Your task to perform on an android device: Open CNN.com Image 0: 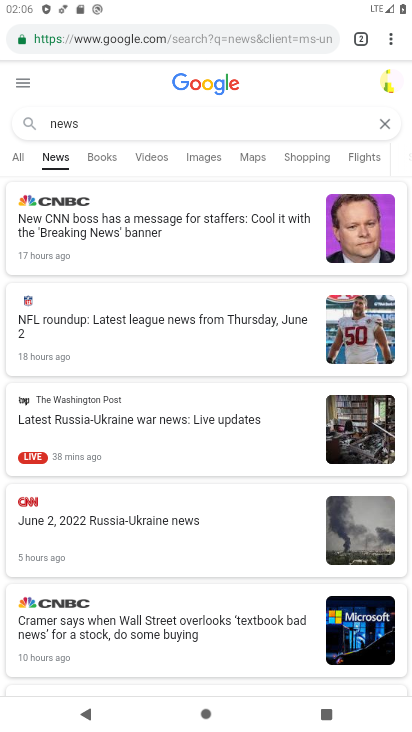
Step 0: click (33, 501)
Your task to perform on an android device: Open CNN.com Image 1: 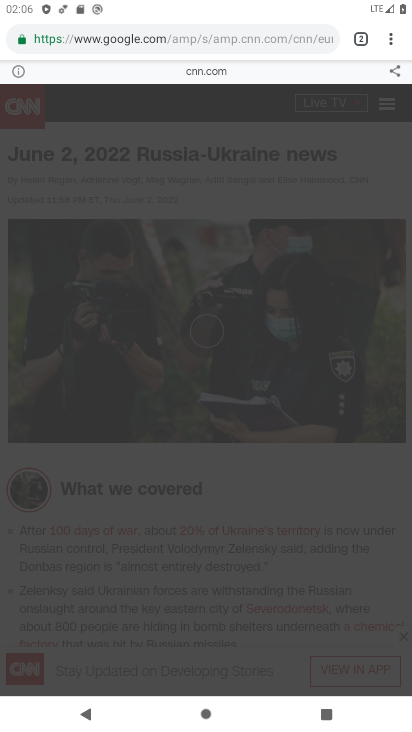
Step 1: click (183, 42)
Your task to perform on an android device: Open CNN.com Image 2: 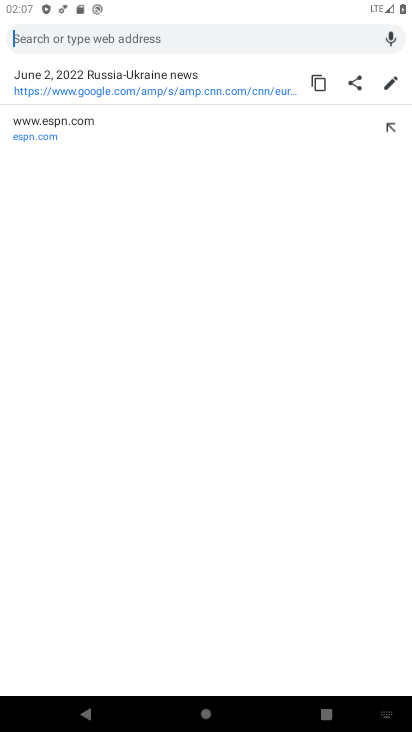
Step 2: type "cnn.com"
Your task to perform on an android device: Open CNN.com Image 3: 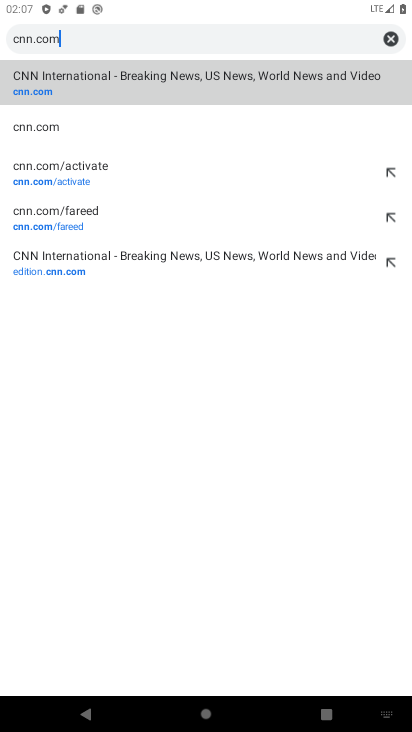
Step 3: click (32, 89)
Your task to perform on an android device: Open CNN.com Image 4: 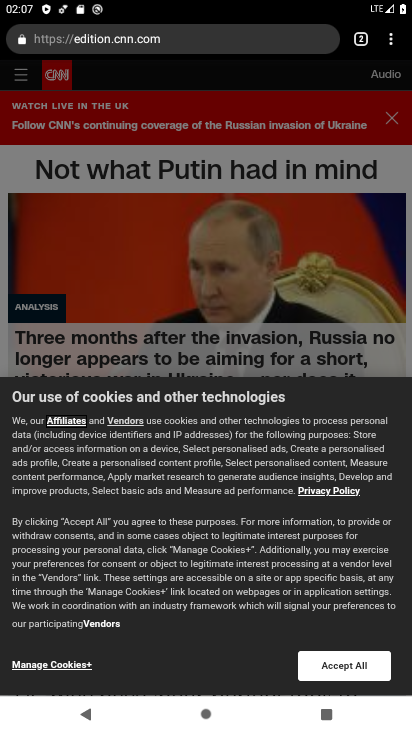
Step 4: task complete